Your task to perform on an android device: turn on data saver in the chrome app Image 0: 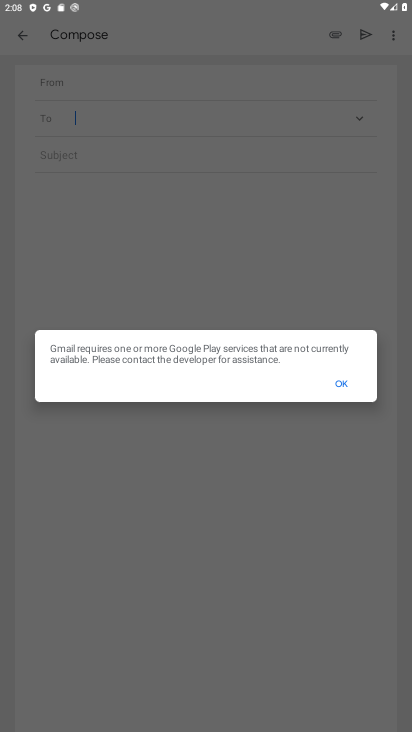
Step 0: drag from (194, 655) to (212, 162)
Your task to perform on an android device: turn on data saver in the chrome app Image 1: 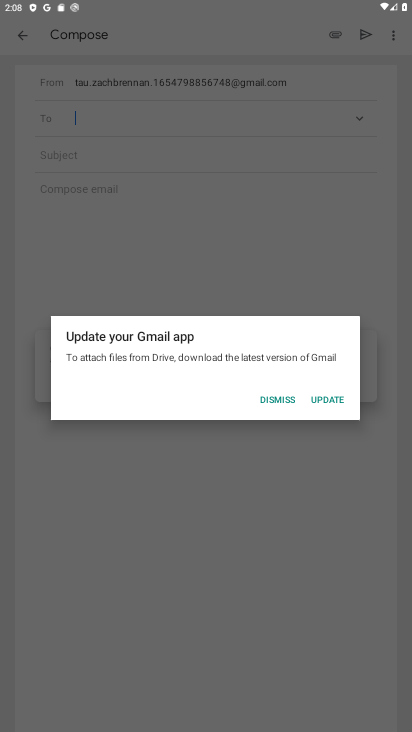
Step 1: press home button
Your task to perform on an android device: turn on data saver in the chrome app Image 2: 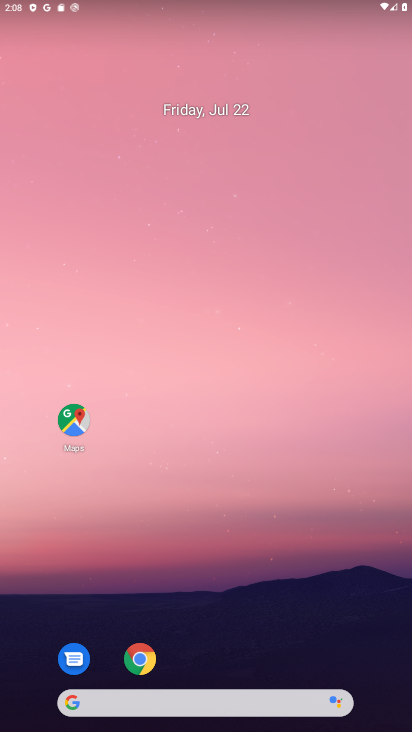
Step 2: click (139, 664)
Your task to perform on an android device: turn on data saver in the chrome app Image 3: 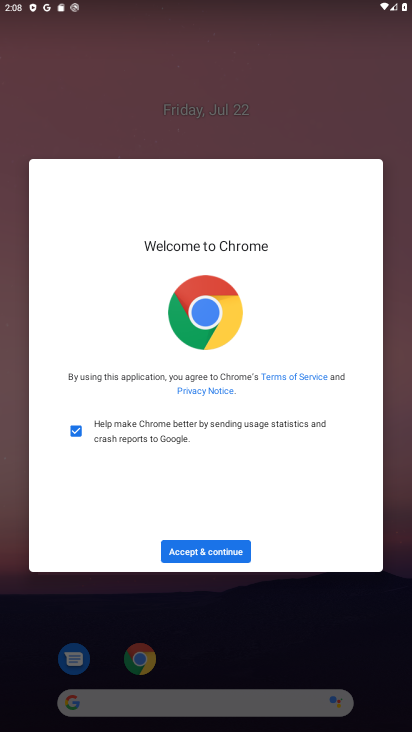
Step 3: click (184, 548)
Your task to perform on an android device: turn on data saver in the chrome app Image 4: 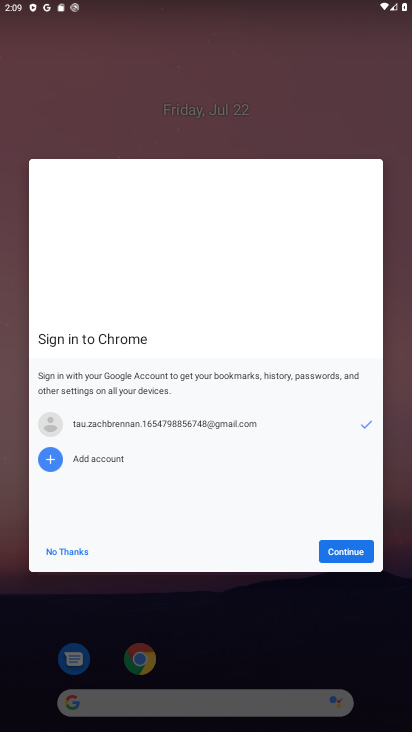
Step 4: click (336, 554)
Your task to perform on an android device: turn on data saver in the chrome app Image 5: 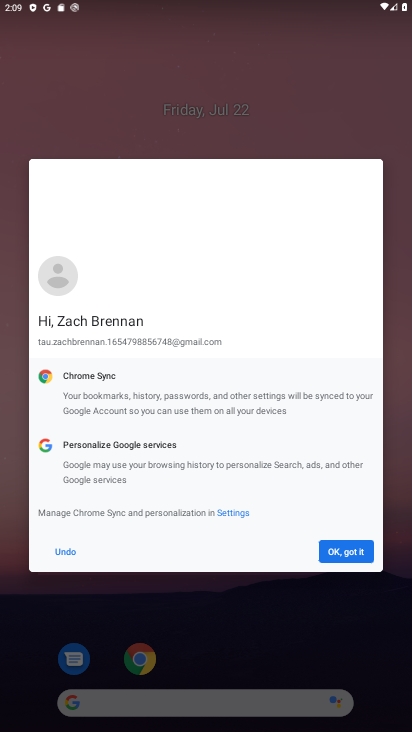
Step 5: click (336, 554)
Your task to perform on an android device: turn on data saver in the chrome app Image 6: 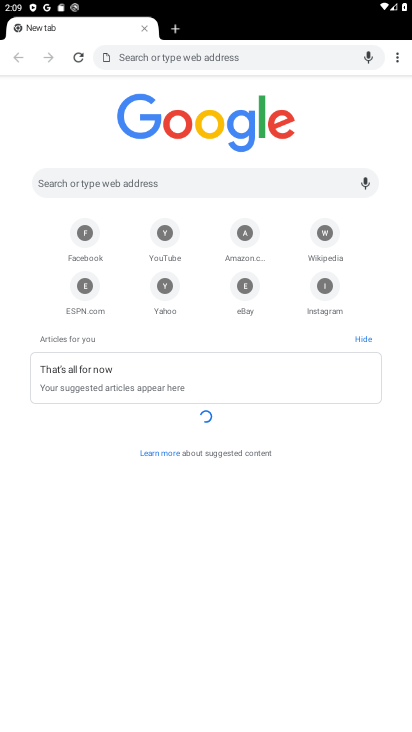
Step 6: click (398, 61)
Your task to perform on an android device: turn on data saver in the chrome app Image 7: 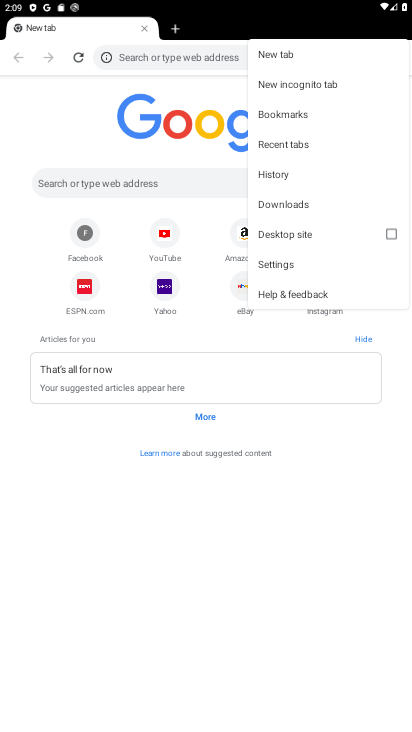
Step 7: click (274, 264)
Your task to perform on an android device: turn on data saver in the chrome app Image 8: 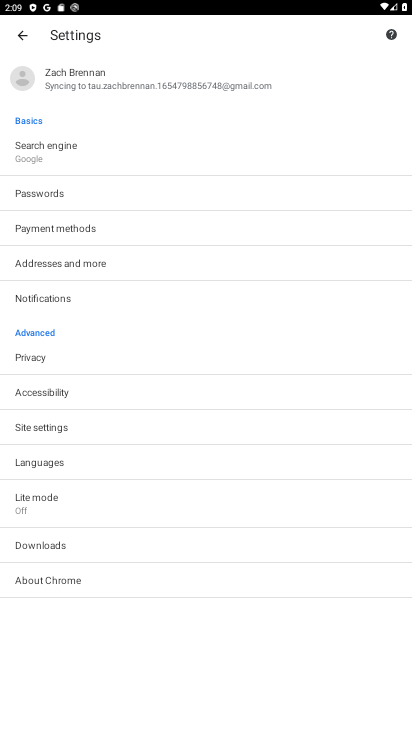
Step 8: click (42, 498)
Your task to perform on an android device: turn on data saver in the chrome app Image 9: 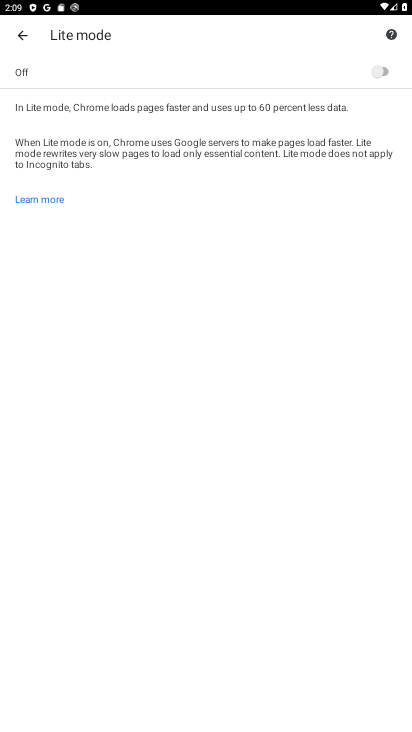
Step 9: click (385, 76)
Your task to perform on an android device: turn on data saver in the chrome app Image 10: 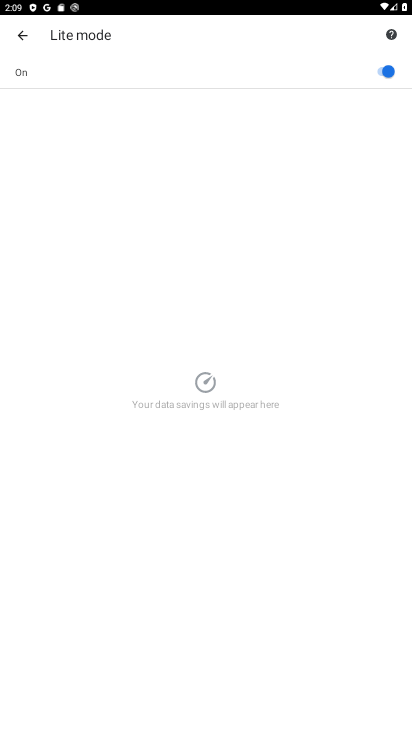
Step 10: task complete